Your task to perform on an android device: toggle pop-ups in chrome Image 0: 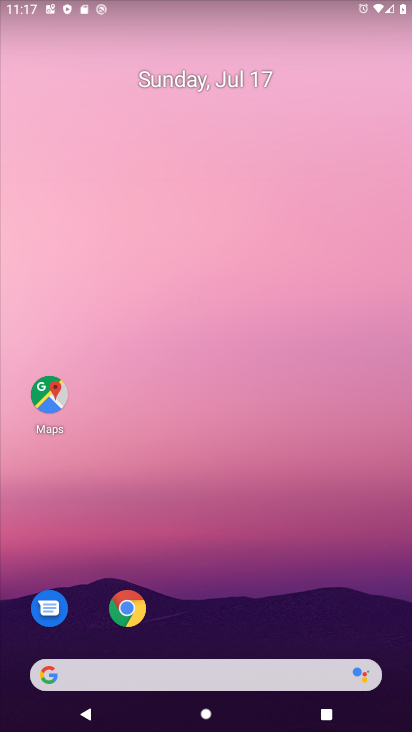
Step 0: click (127, 603)
Your task to perform on an android device: toggle pop-ups in chrome Image 1: 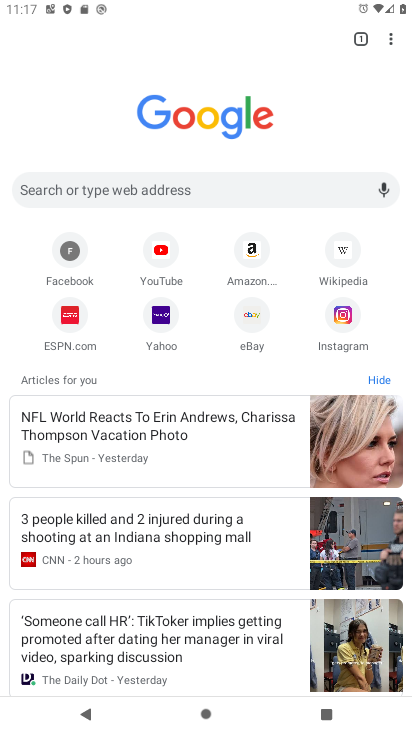
Step 1: drag from (389, 39) to (245, 323)
Your task to perform on an android device: toggle pop-ups in chrome Image 2: 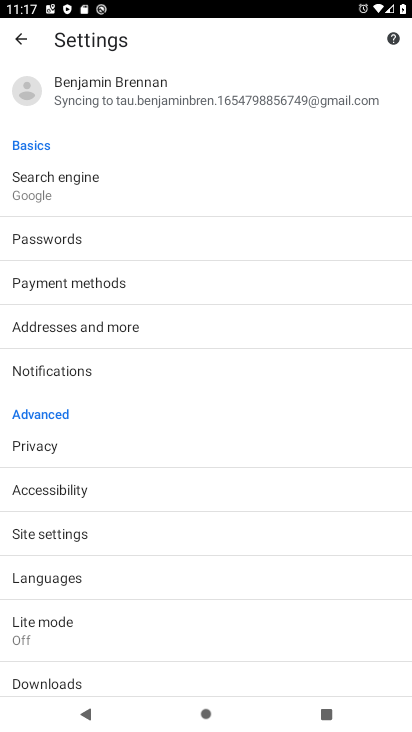
Step 2: click (83, 533)
Your task to perform on an android device: toggle pop-ups in chrome Image 3: 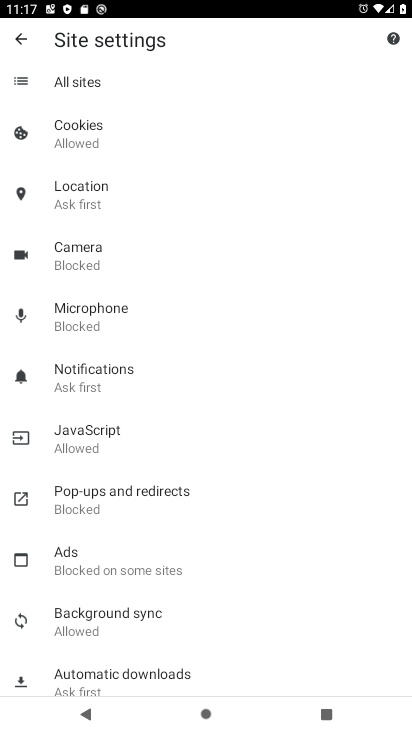
Step 3: click (70, 503)
Your task to perform on an android device: toggle pop-ups in chrome Image 4: 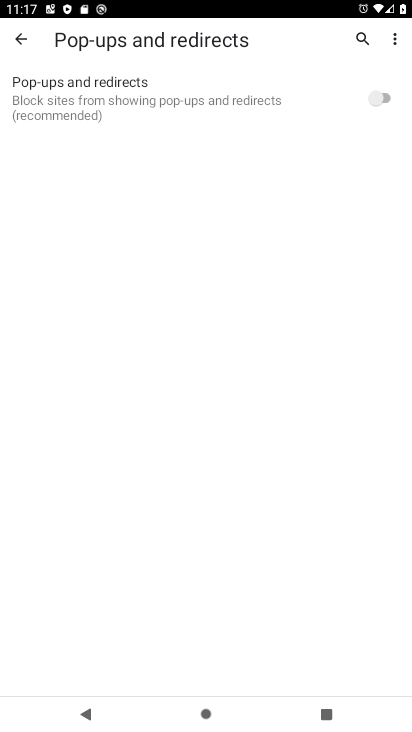
Step 4: click (365, 96)
Your task to perform on an android device: toggle pop-ups in chrome Image 5: 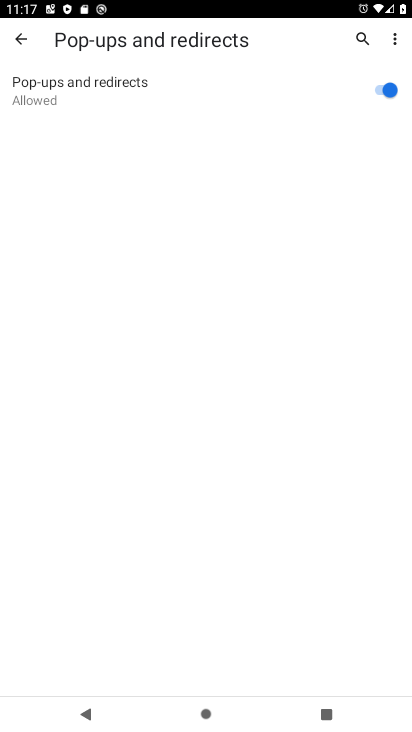
Step 5: task complete